Your task to perform on an android device: delete the emails in spam in the gmail app Image 0: 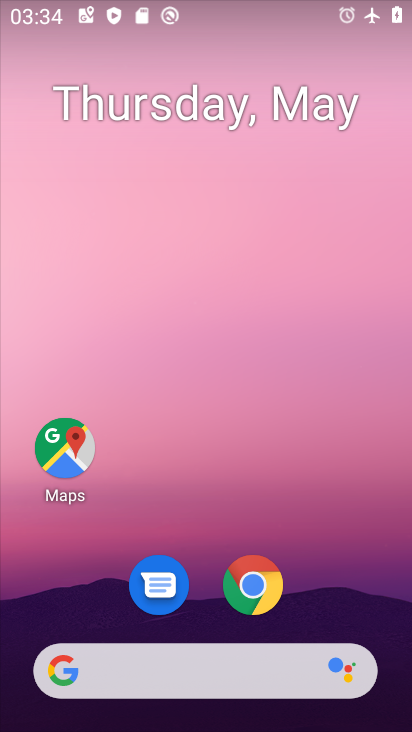
Step 0: drag from (226, 517) to (213, 43)
Your task to perform on an android device: delete the emails in spam in the gmail app Image 1: 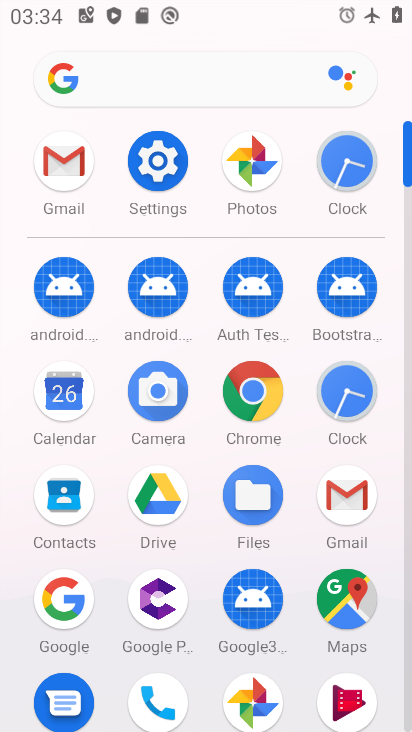
Step 1: click (73, 147)
Your task to perform on an android device: delete the emails in spam in the gmail app Image 2: 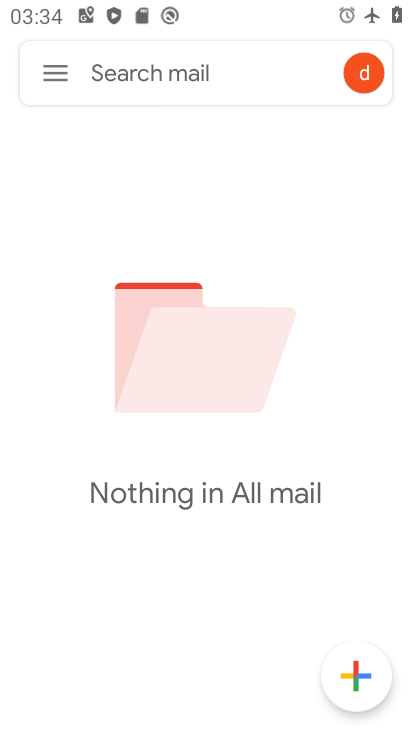
Step 2: click (49, 66)
Your task to perform on an android device: delete the emails in spam in the gmail app Image 3: 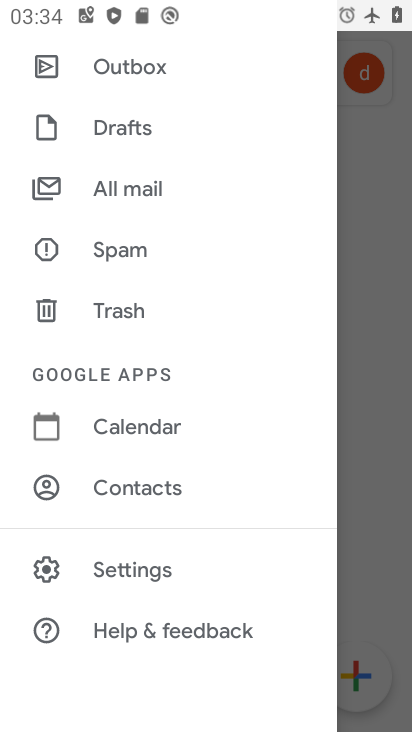
Step 3: click (144, 233)
Your task to perform on an android device: delete the emails in spam in the gmail app Image 4: 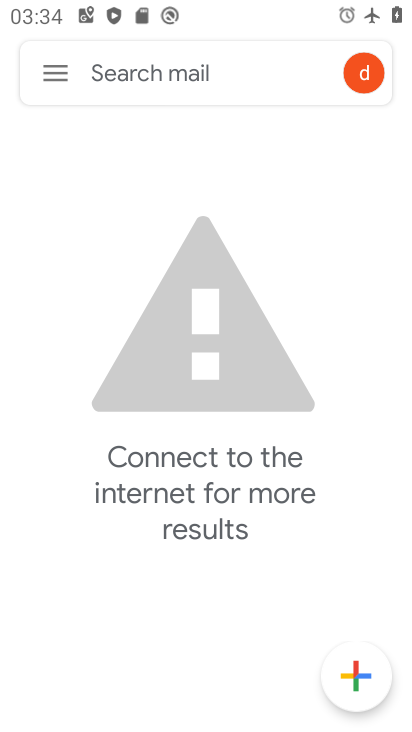
Step 4: task complete